Your task to perform on an android device: find snoozed emails in the gmail app Image 0: 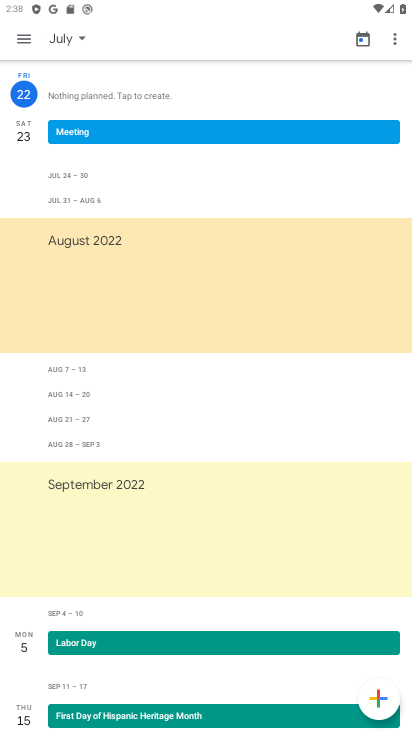
Step 0: press home button
Your task to perform on an android device: find snoozed emails in the gmail app Image 1: 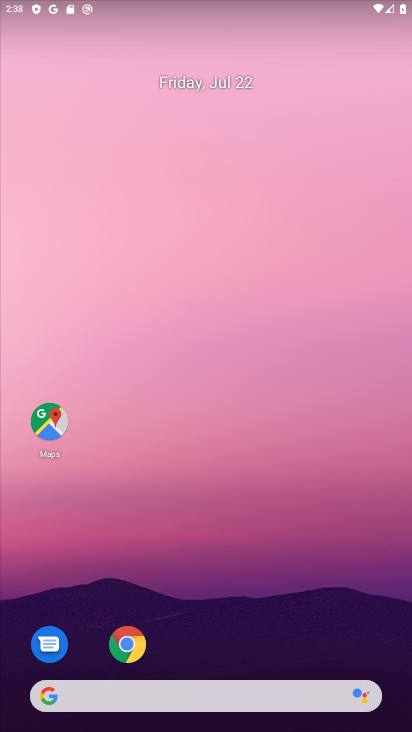
Step 1: drag from (271, 600) to (277, 195)
Your task to perform on an android device: find snoozed emails in the gmail app Image 2: 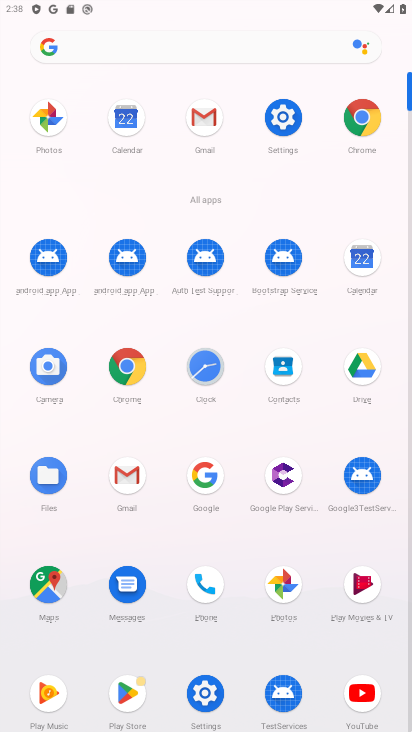
Step 2: click (124, 474)
Your task to perform on an android device: find snoozed emails in the gmail app Image 3: 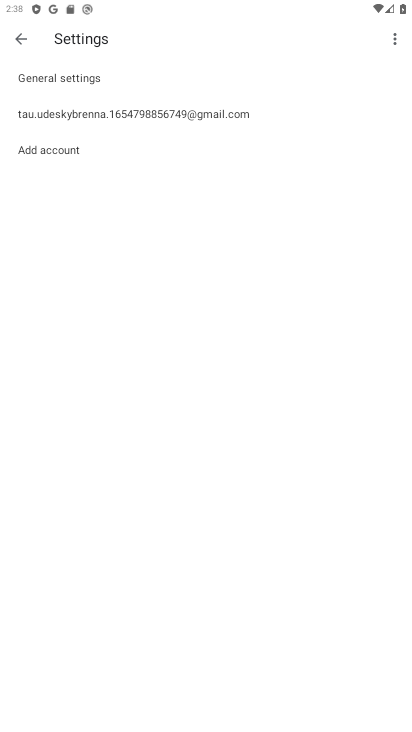
Step 3: click (6, 40)
Your task to perform on an android device: find snoozed emails in the gmail app Image 4: 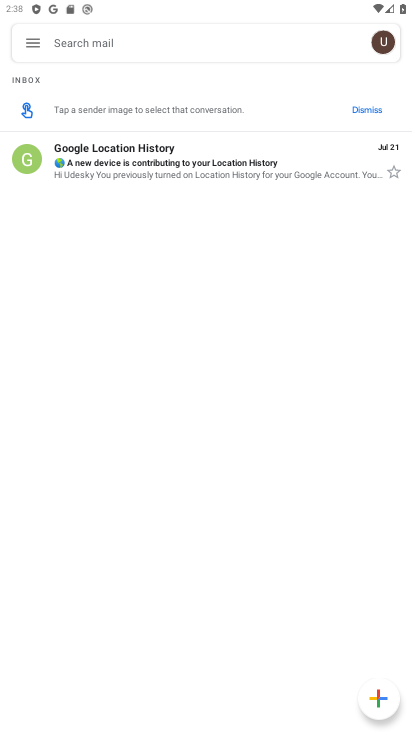
Step 4: click (31, 45)
Your task to perform on an android device: find snoozed emails in the gmail app Image 5: 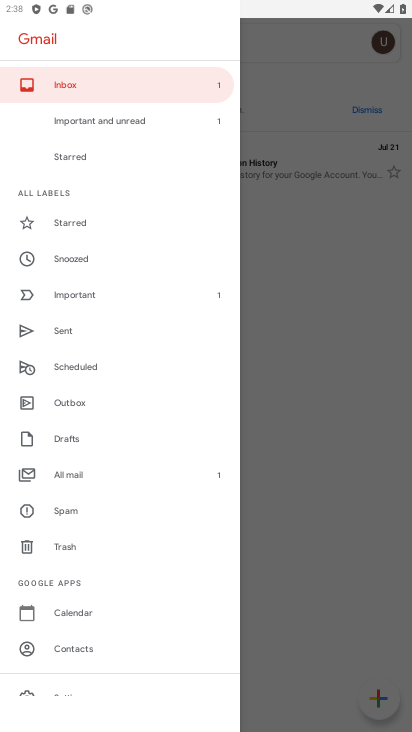
Step 5: click (68, 255)
Your task to perform on an android device: find snoozed emails in the gmail app Image 6: 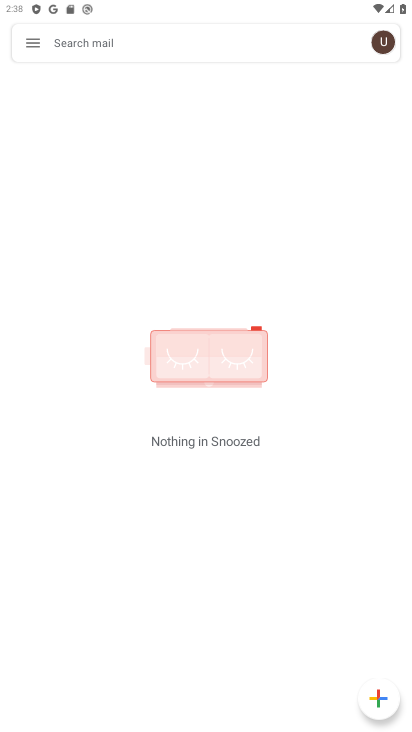
Step 6: task complete